Your task to perform on an android device: check storage Image 0: 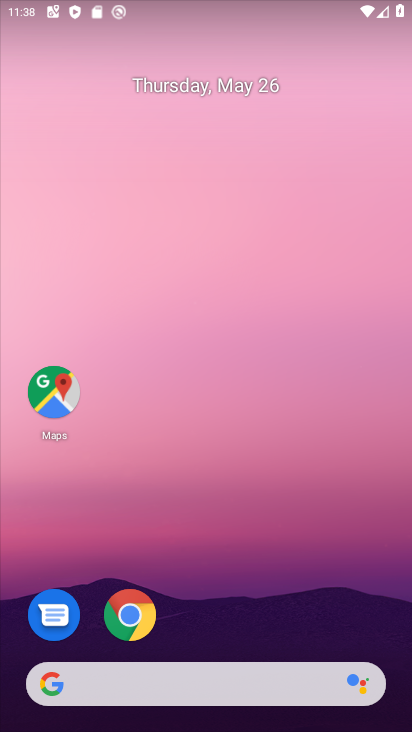
Step 0: drag from (255, 627) to (140, 104)
Your task to perform on an android device: check storage Image 1: 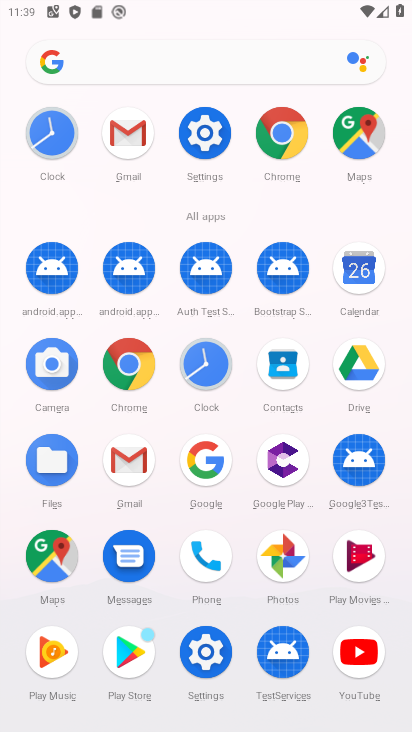
Step 1: click (213, 127)
Your task to perform on an android device: check storage Image 2: 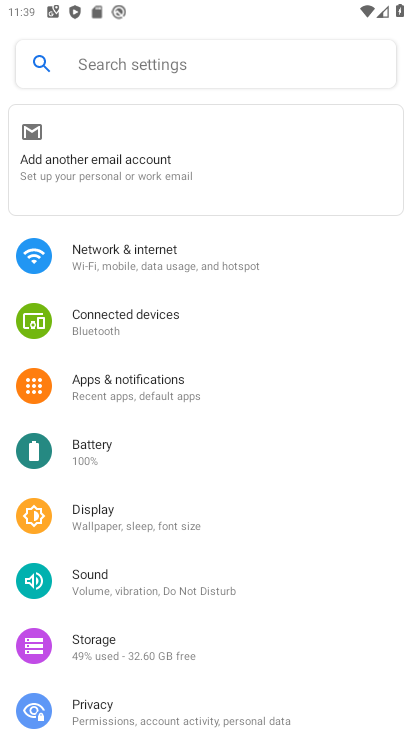
Step 2: click (139, 643)
Your task to perform on an android device: check storage Image 3: 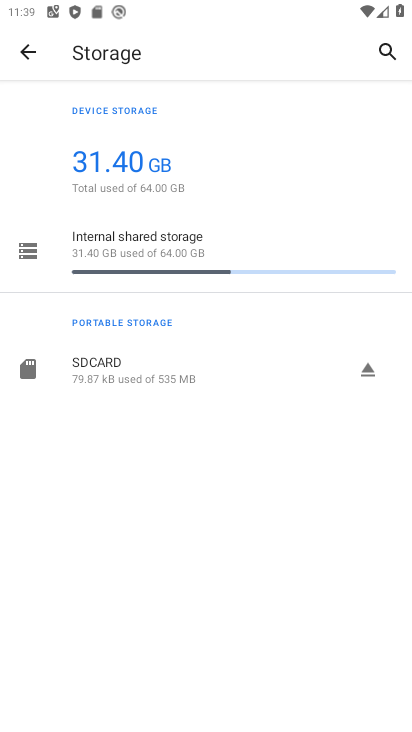
Step 3: task complete